Your task to perform on an android device: Open the calendar and show me this week's events? Image 0: 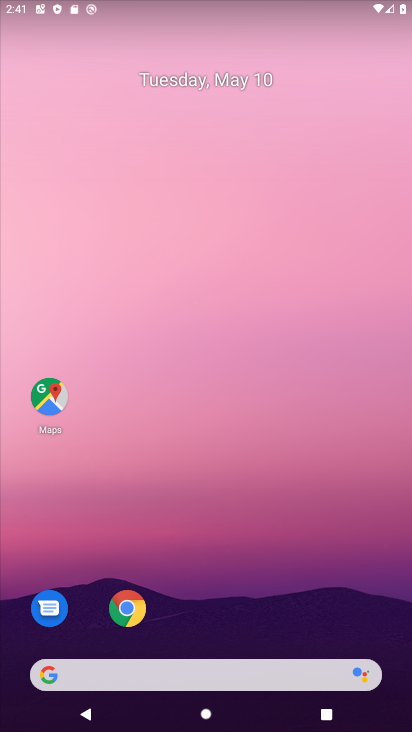
Step 0: drag from (220, 609) to (339, 27)
Your task to perform on an android device: Open the calendar and show me this week's events? Image 1: 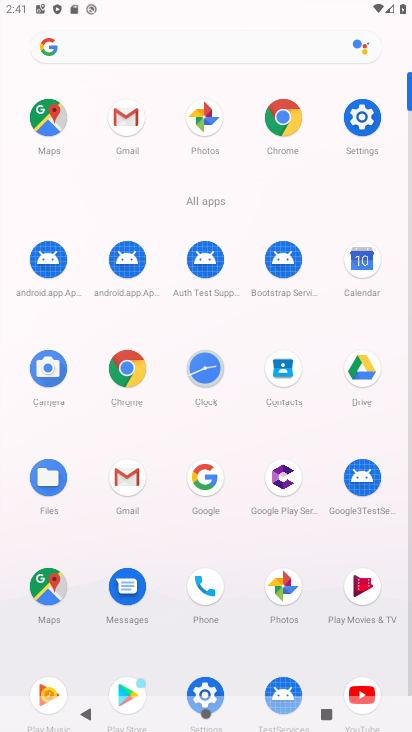
Step 1: click (370, 287)
Your task to perform on an android device: Open the calendar and show me this week's events? Image 2: 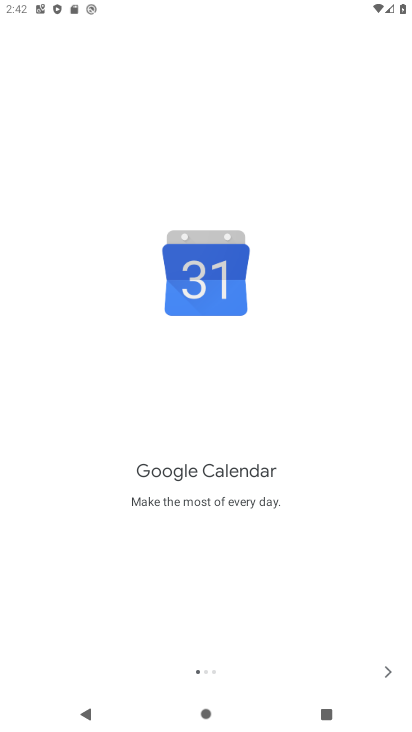
Step 2: click (384, 663)
Your task to perform on an android device: Open the calendar and show me this week's events? Image 3: 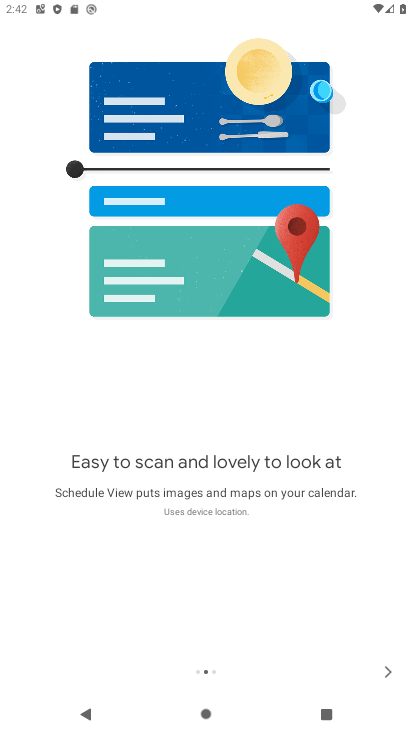
Step 3: click (391, 670)
Your task to perform on an android device: Open the calendar and show me this week's events? Image 4: 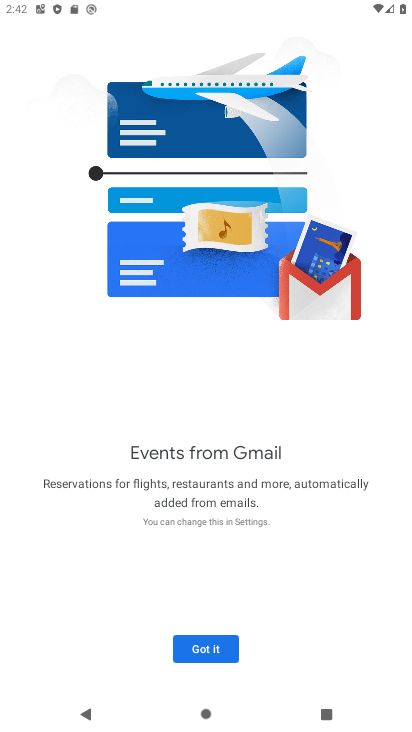
Step 4: click (207, 657)
Your task to perform on an android device: Open the calendar and show me this week's events? Image 5: 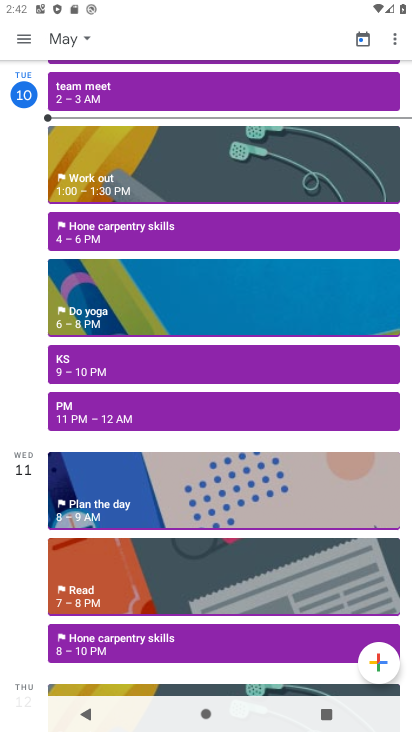
Step 5: click (18, 46)
Your task to perform on an android device: Open the calendar and show me this week's events? Image 6: 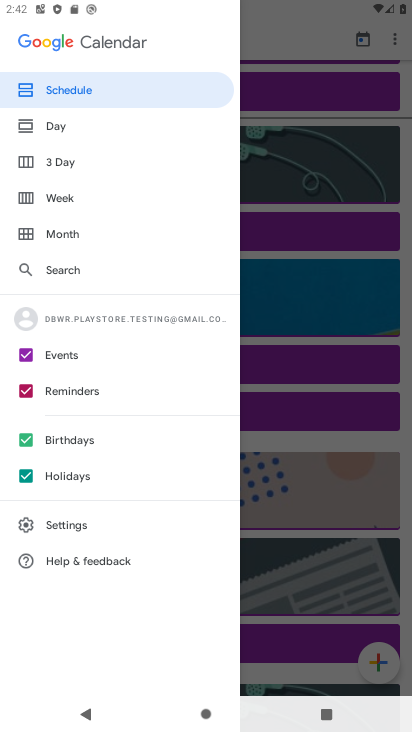
Step 6: click (75, 384)
Your task to perform on an android device: Open the calendar and show me this week's events? Image 7: 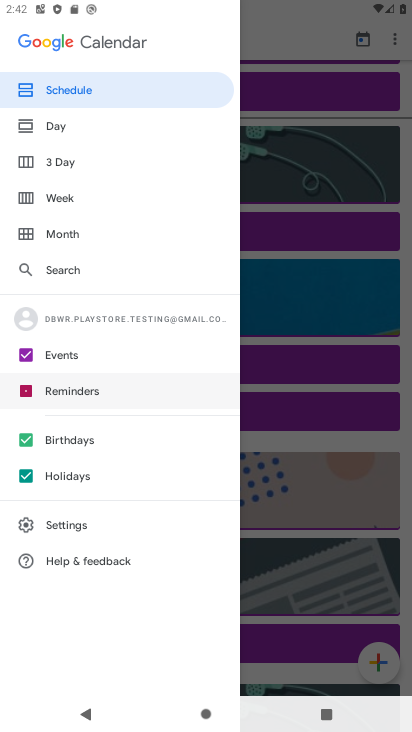
Step 7: click (70, 442)
Your task to perform on an android device: Open the calendar and show me this week's events? Image 8: 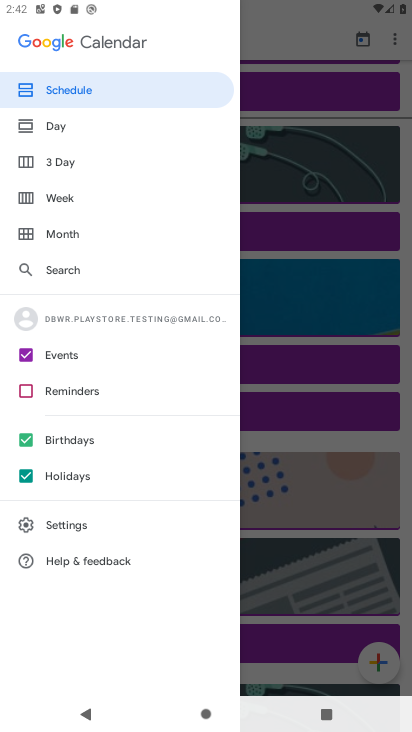
Step 8: click (67, 482)
Your task to perform on an android device: Open the calendar and show me this week's events? Image 9: 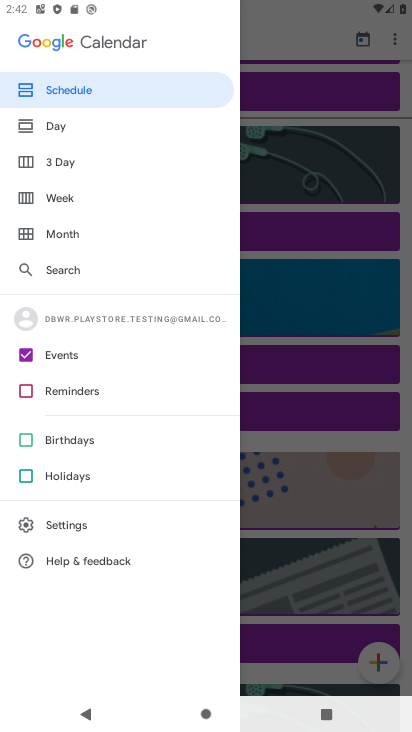
Step 9: click (72, 207)
Your task to perform on an android device: Open the calendar and show me this week's events? Image 10: 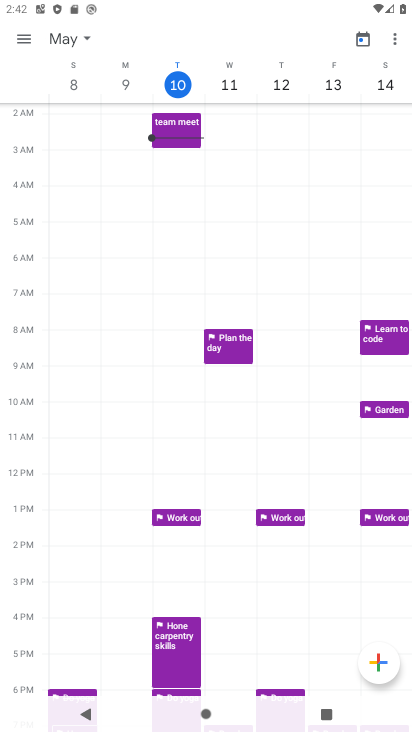
Step 10: task complete